Your task to perform on an android device: toggle location history Image 0: 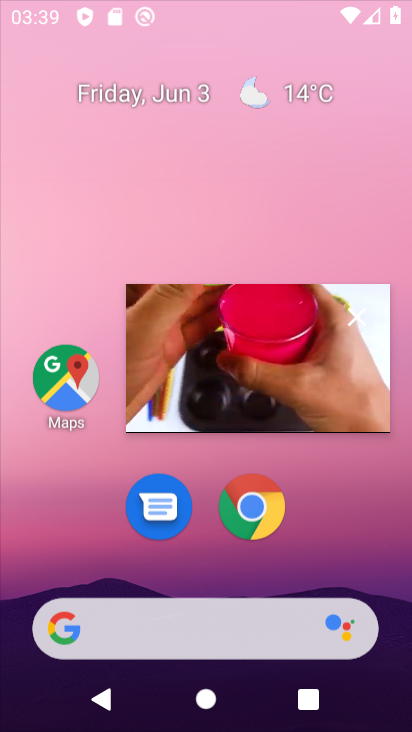
Step 0: press home button
Your task to perform on an android device: toggle location history Image 1: 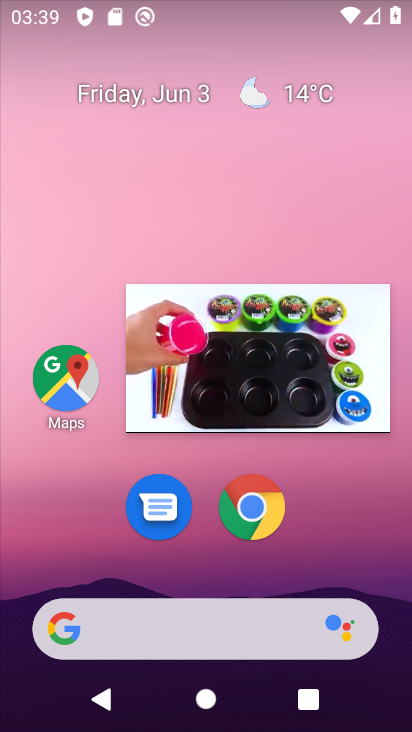
Step 1: click (366, 299)
Your task to perform on an android device: toggle location history Image 2: 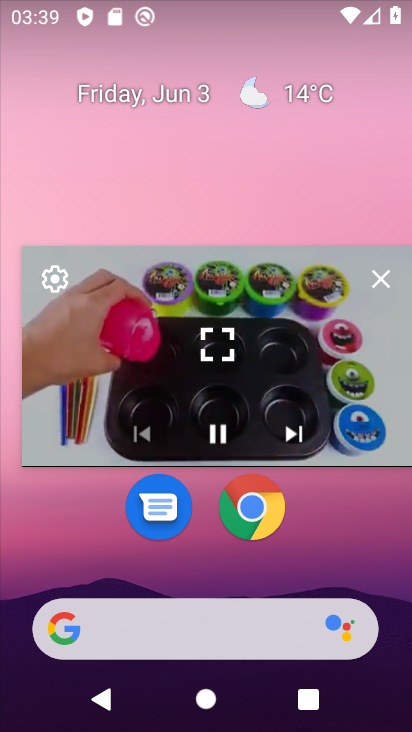
Step 2: click (380, 276)
Your task to perform on an android device: toggle location history Image 3: 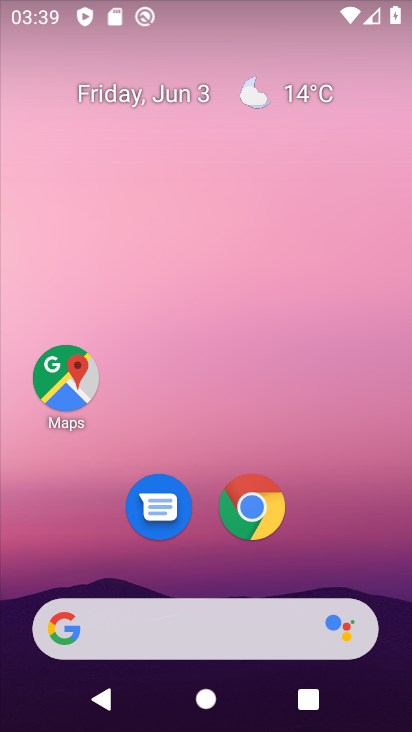
Step 3: drag from (248, 569) to (240, 168)
Your task to perform on an android device: toggle location history Image 4: 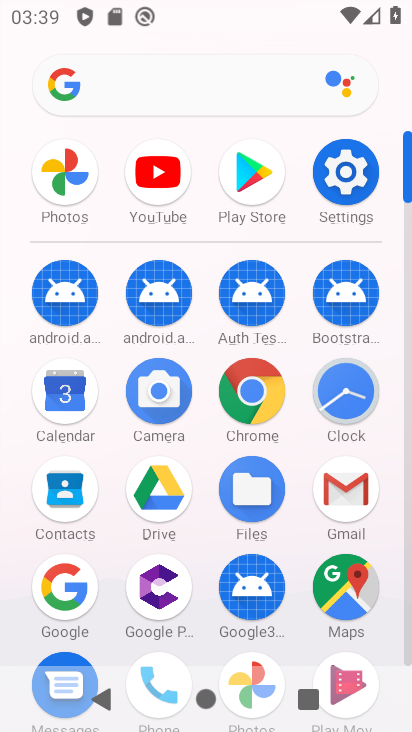
Step 4: click (350, 192)
Your task to perform on an android device: toggle location history Image 5: 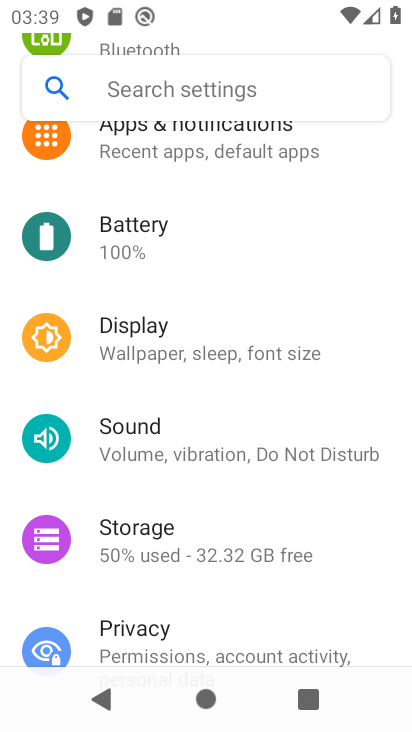
Step 5: drag from (194, 610) to (212, 324)
Your task to perform on an android device: toggle location history Image 6: 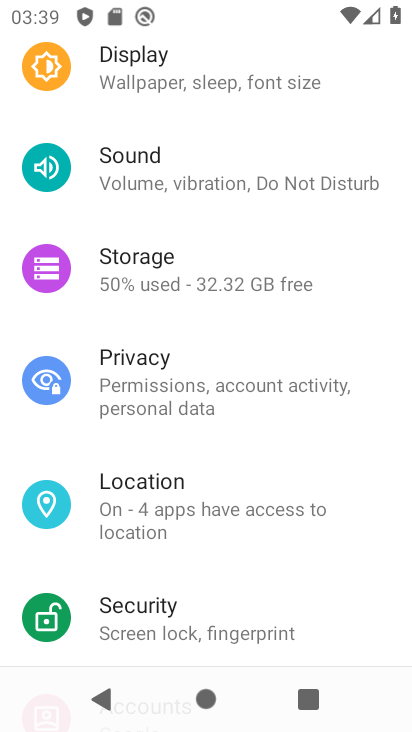
Step 6: click (152, 500)
Your task to perform on an android device: toggle location history Image 7: 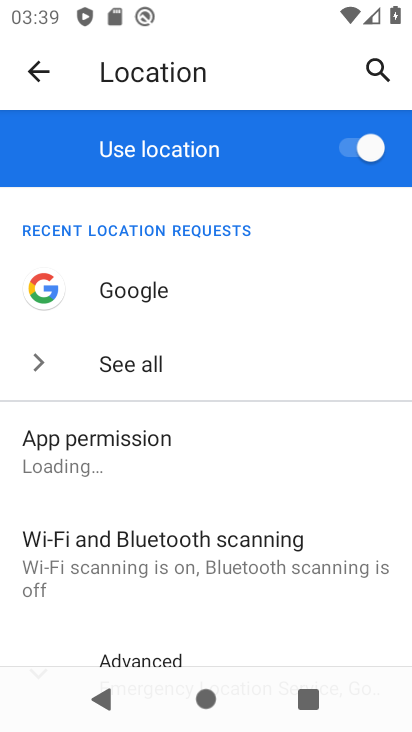
Step 7: drag from (259, 514) to (262, 206)
Your task to perform on an android device: toggle location history Image 8: 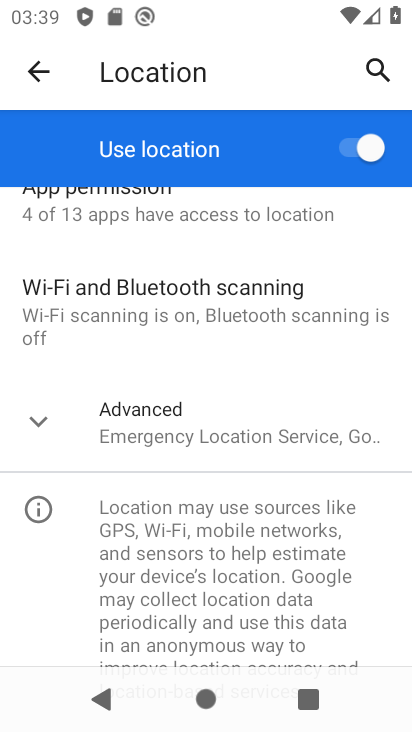
Step 8: click (141, 415)
Your task to perform on an android device: toggle location history Image 9: 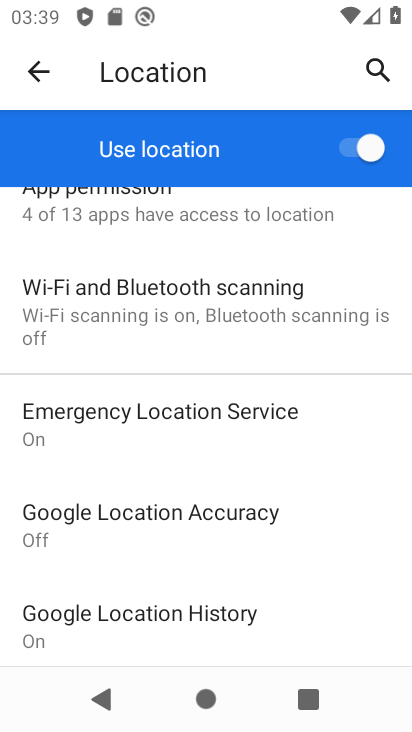
Step 9: click (209, 612)
Your task to perform on an android device: toggle location history Image 10: 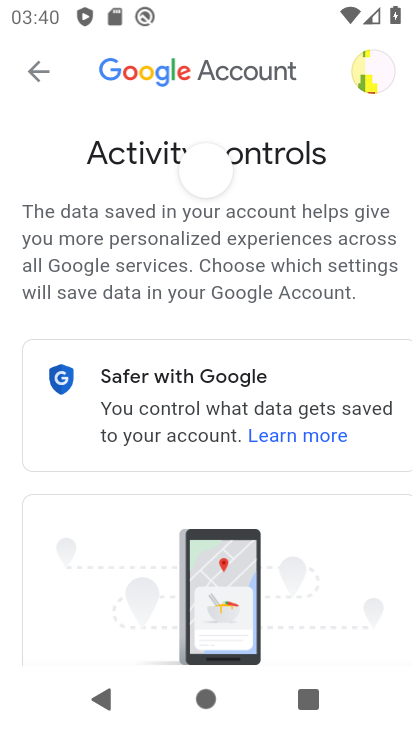
Step 10: drag from (344, 564) to (315, 234)
Your task to perform on an android device: toggle location history Image 11: 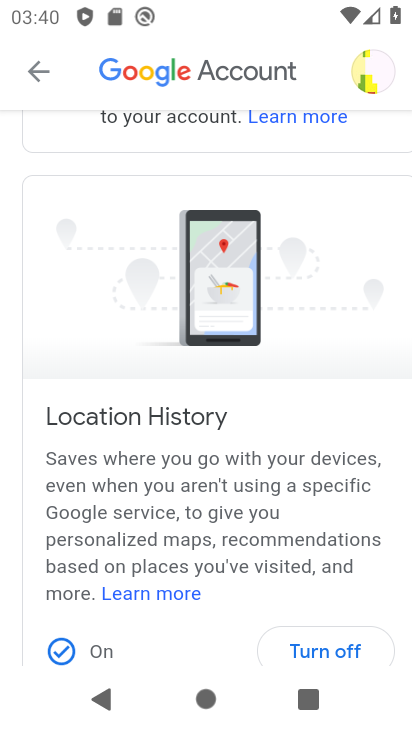
Step 11: drag from (317, 594) to (324, 442)
Your task to perform on an android device: toggle location history Image 12: 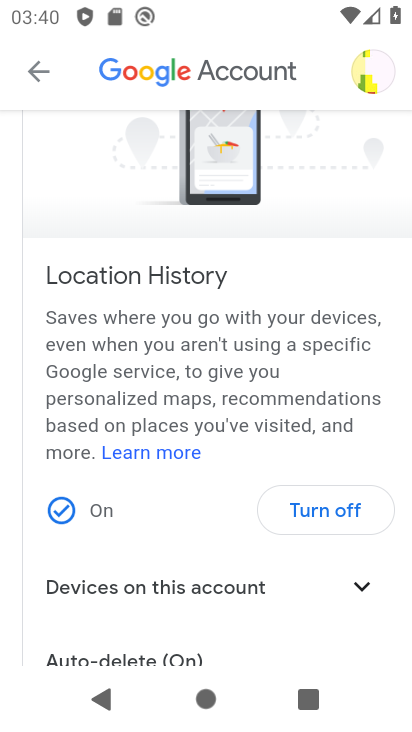
Step 12: click (328, 510)
Your task to perform on an android device: toggle location history Image 13: 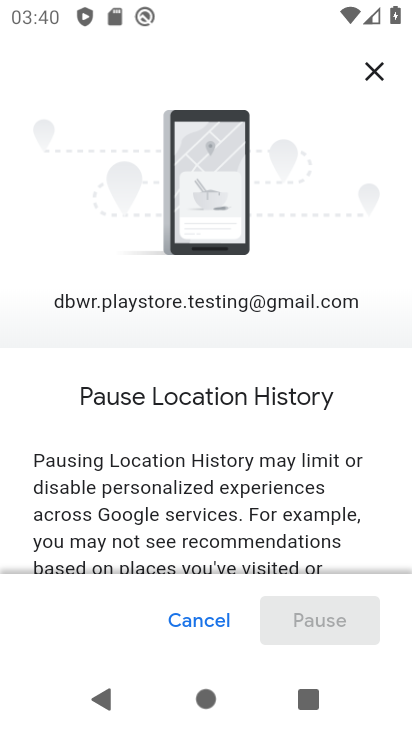
Step 13: click (340, 621)
Your task to perform on an android device: toggle location history Image 14: 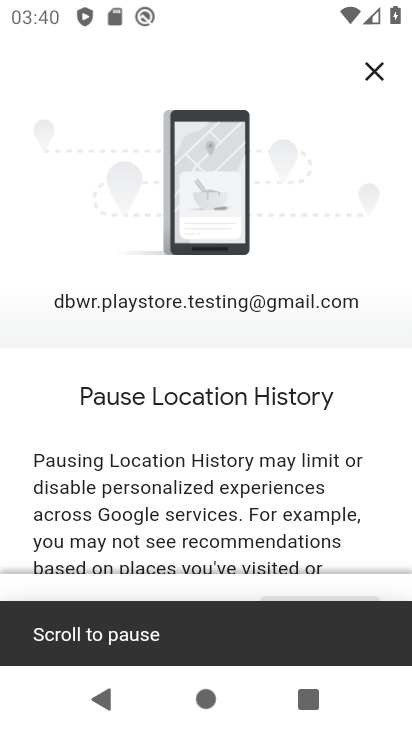
Step 14: drag from (380, 536) to (355, 32)
Your task to perform on an android device: toggle location history Image 15: 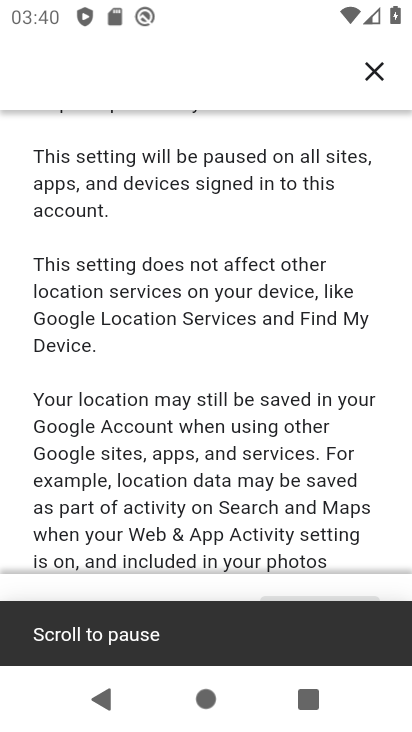
Step 15: drag from (366, 536) to (371, 1)
Your task to perform on an android device: toggle location history Image 16: 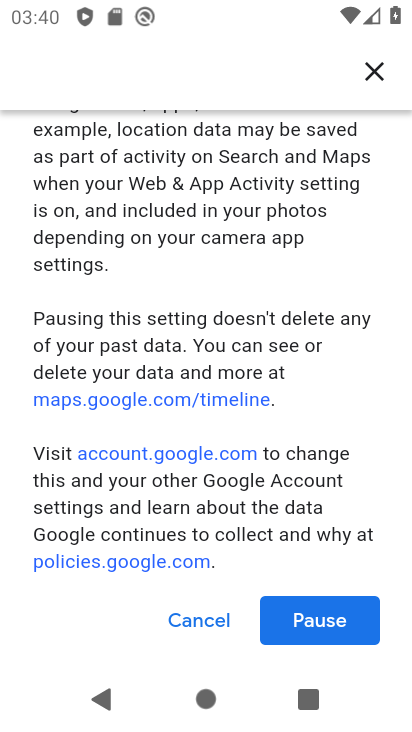
Step 16: click (313, 624)
Your task to perform on an android device: toggle location history Image 17: 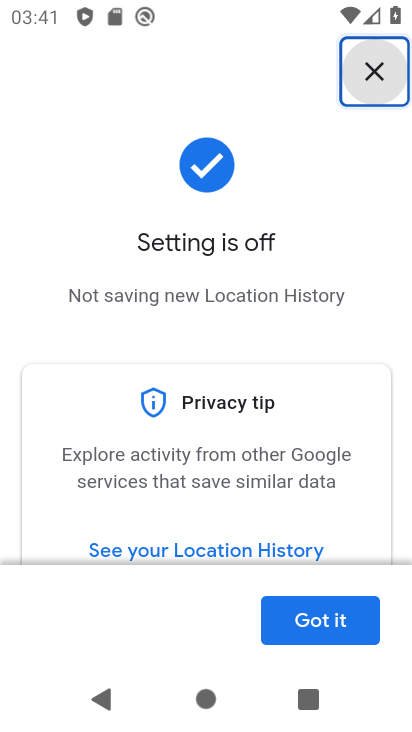
Step 17: click (316, 627)
Your task to perform on an android device: toggle location history Image 18: 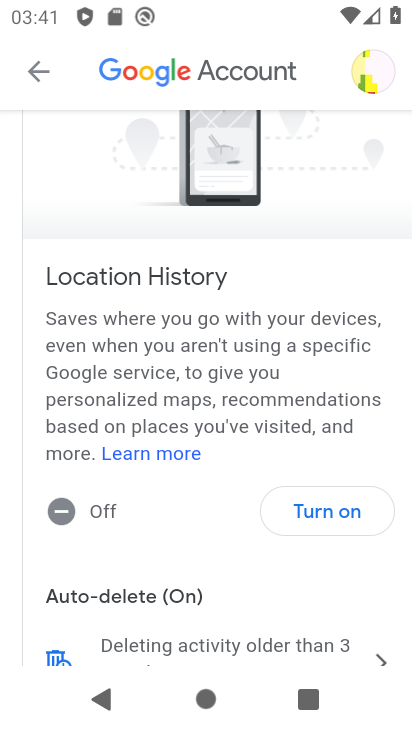
Step 18: task complete